Your task to perform on an android device: toggle data saver in the chrome app Image 0: 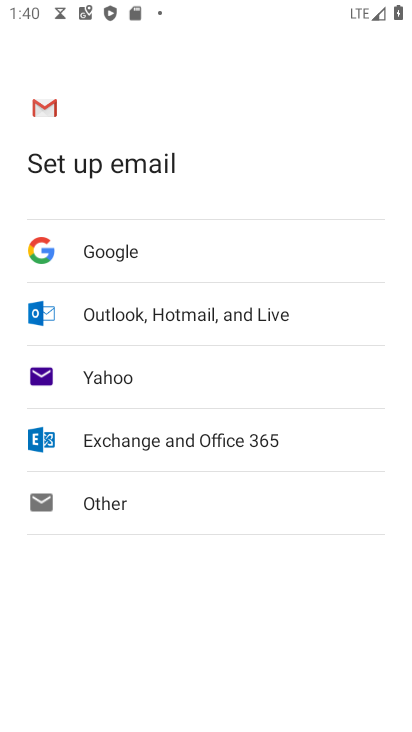
Step 0: press home button
Your task to perform on an android device: toggle data saver in the chrome app Image 1: 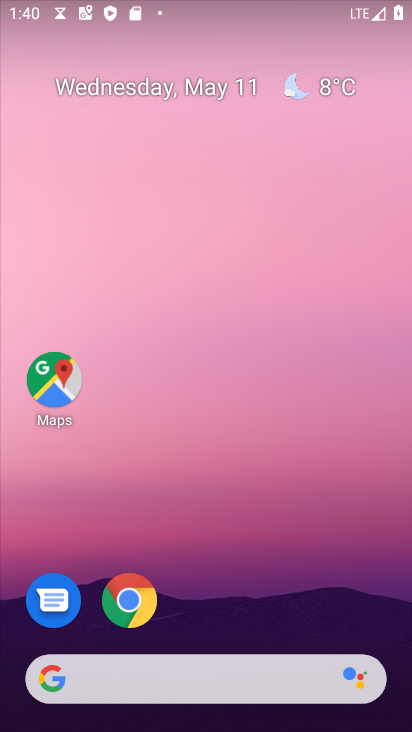
Step 1: click (141, 593)
Your task to perform on an android device: toggle data saver in the chrome app Image 2: 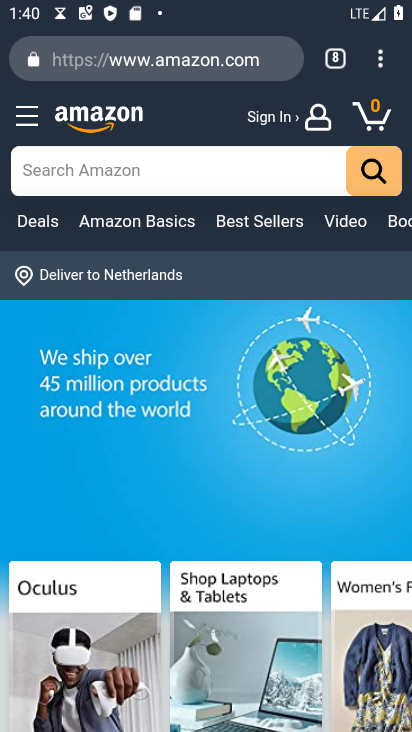
Step 2: click (391, 49)
Your task to perform on an android device: toggle data saver in the chrome app Image 3: 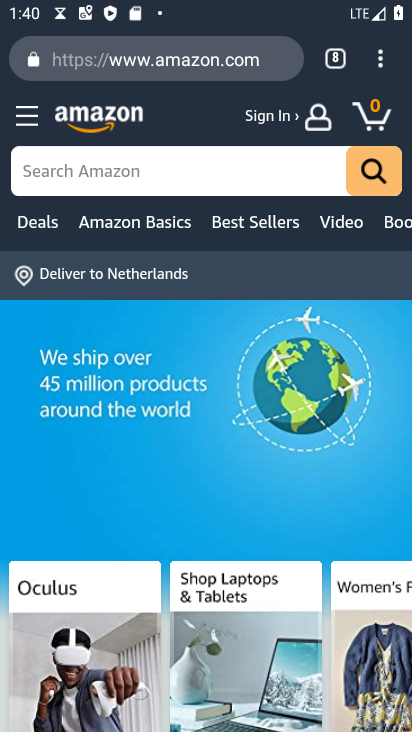
Step 3: click (383, 56)
Your task to perform on an android device: toggle data saver in the chrome app Image 4: 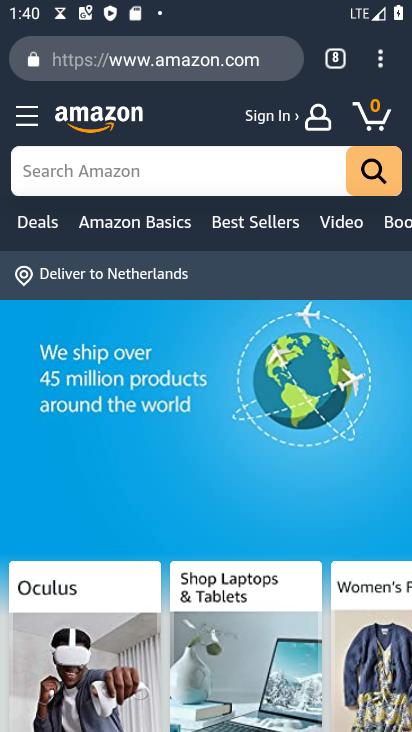
Step 4: click (382, 54)
Your task to perform on an android device: toggle data saver in the chrome app Image 5: 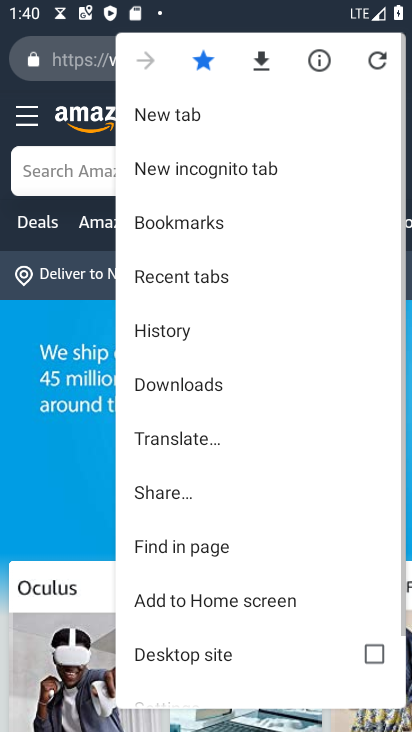
Step 5: drag from (261, 573) to (305, 184)
Your task to perform on an android device: toggle data saver in the chrome app Image 6: 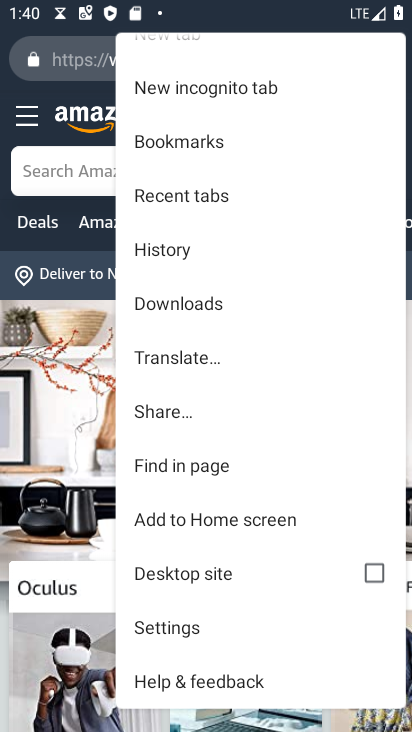
Step 6: click (206, 620)
Your task to perform on an android device: toggle data saver in the chrome app Image 7: 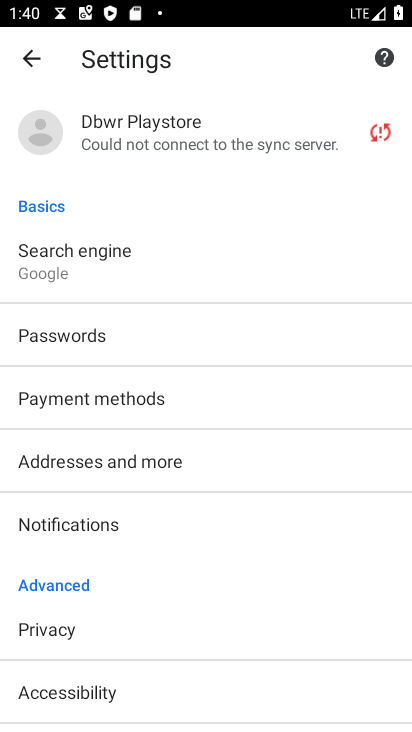
Step 7: drag from (198, 600) to (210, 261)
Your task to perform on an android device: toggle data saver in the chrome app Image 8: 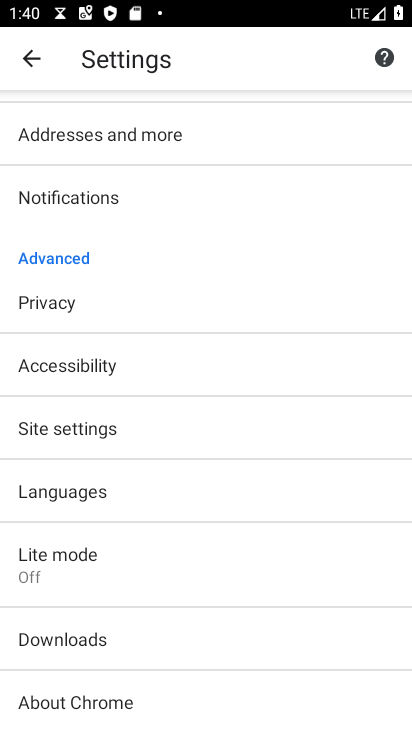
Step 8: click (142, 565)
Your task to perform on an android device: toggle data saver in the chrome app Image 9: 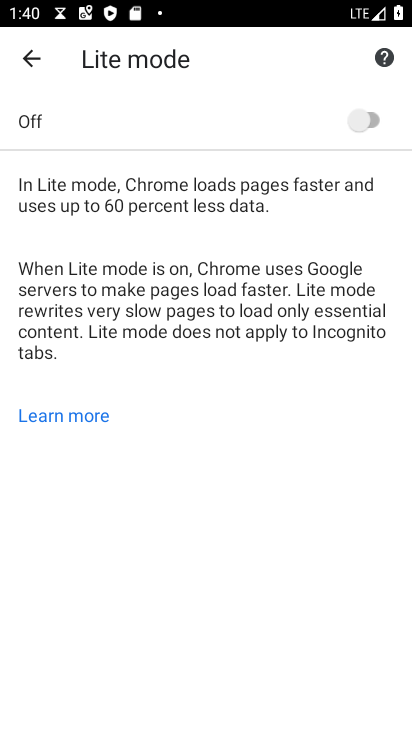
Step 9: click (362, 119)
Your task to perform on an android device: toggle data saver in the chrome app Image 10: 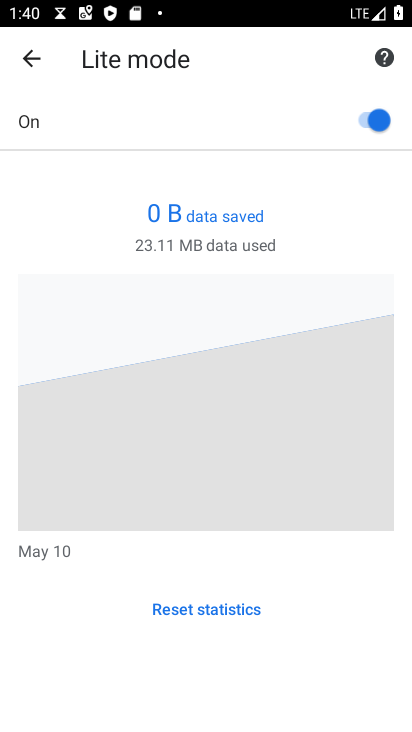
Step 10: task complete